Your task to perform on an android device: change the clock display to show seconds Image 0: 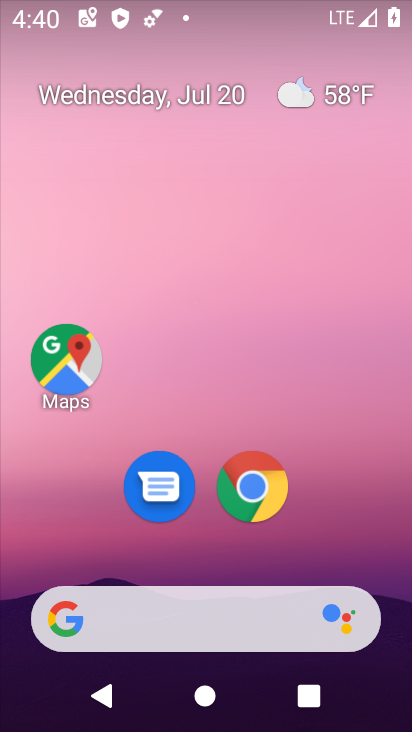
Step 0: drag from (161, 559) to (195, 14)
Your task to perform on an android device: change the clock display to show seconds Image 1: 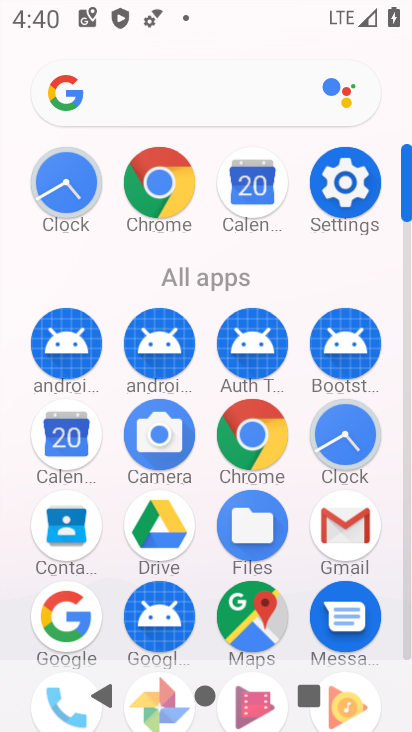
Step 1: click (345, 419)
Your task to perform on an android device: change the clock display to show seconds Image 2: 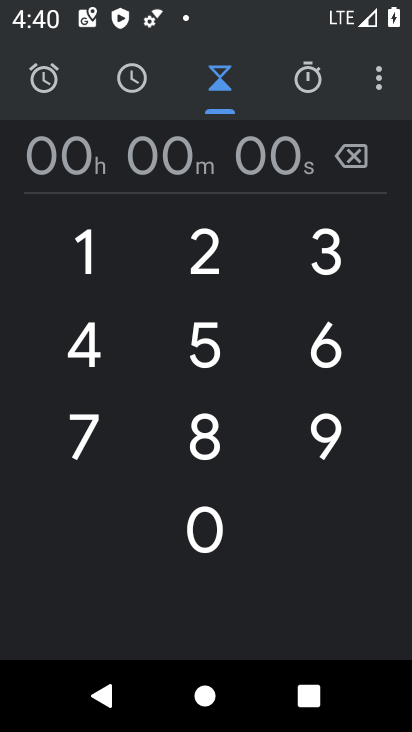
Step 2: click (376, 63)
Your task to perform on an android device: change the clock display to show seconds Image 3: 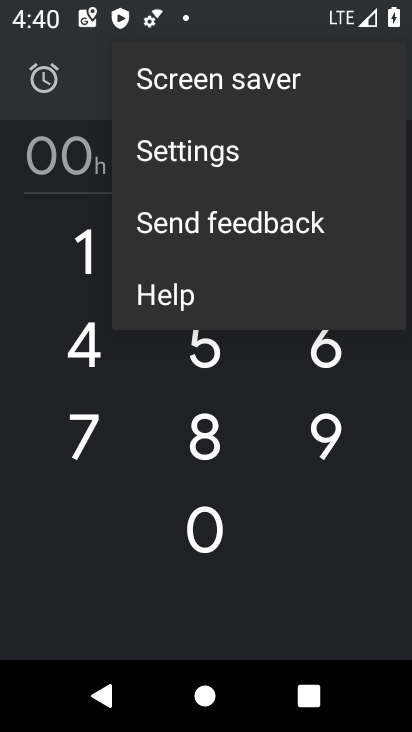
Step 3: click (238, 147)
Your task to perform on an android device: change the clock display to show seconds Image 4: 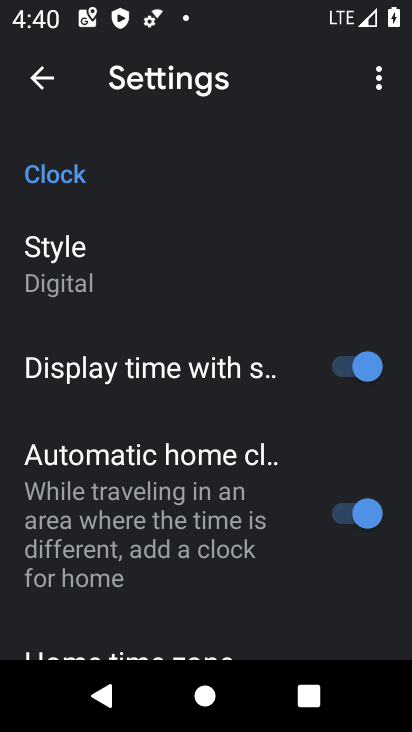
Step 4: task complete